Your task to perform on an android device: delete a single message in the gmail app Image 0: 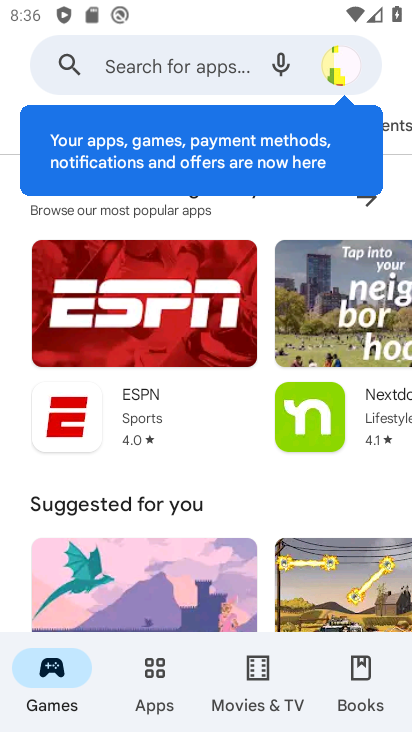
Step 0: press home button
Your task to perform on an android device: delete a single message in the gmail app Image 1: 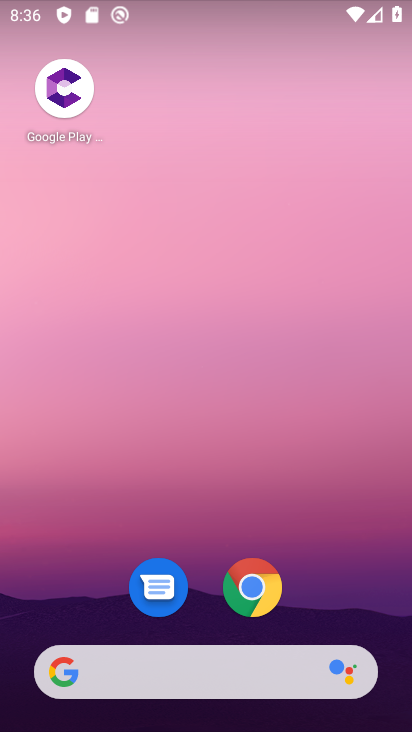
Step 1: drag from (216, 647) to (249, 193)
Your task to perform on an android device: delete a single message in the gmail app Image 2: 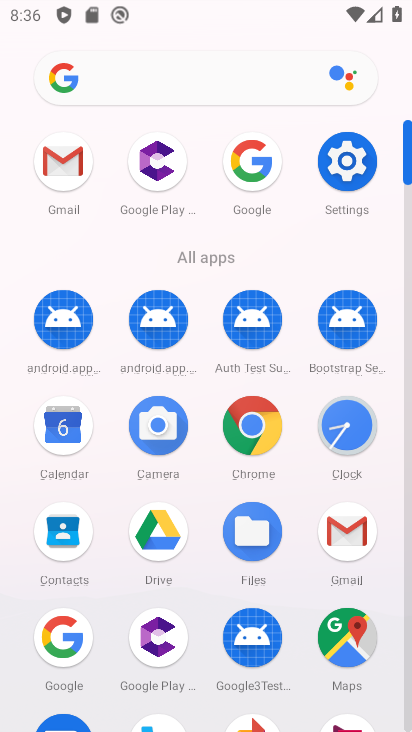
Step 2: click (82, 159)
Your task to perform on an android device: delete a single message in the gmail app Image 3: 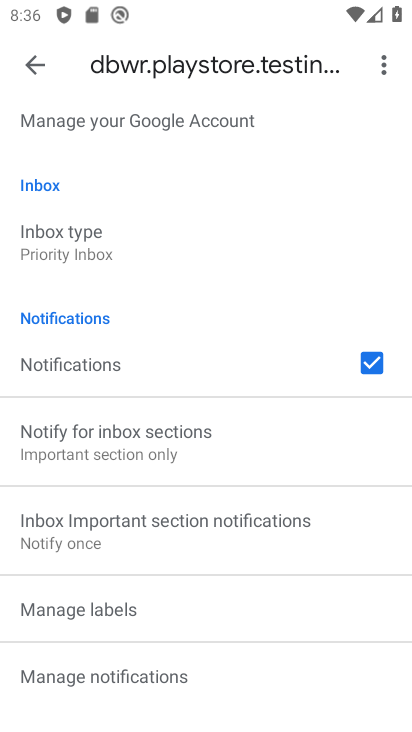
Step 3: click (41, 67)
Your task to perform on an android device: delete a single message in the gmail app Image 4: 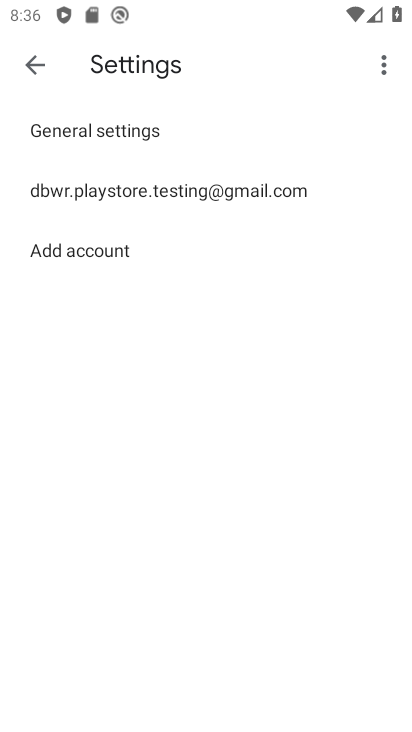
Step 4: click (41, 67)
Your task to perform on an android device: delete a single message in the gmail app Image 5: 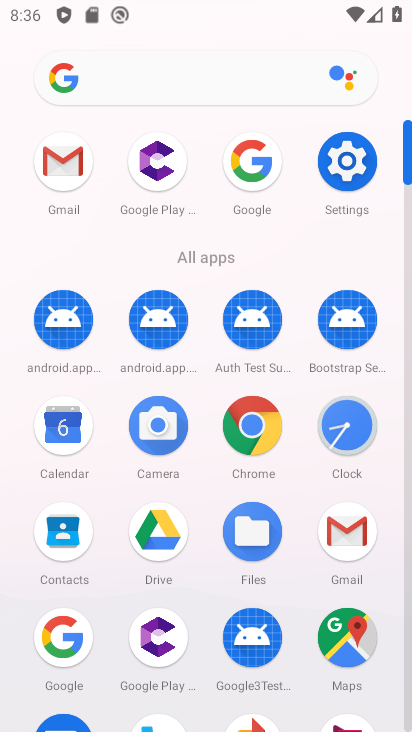
Step 5: click (46, 133)
Your task to perform on an android device: delete a single message in the gmail app Image 6: 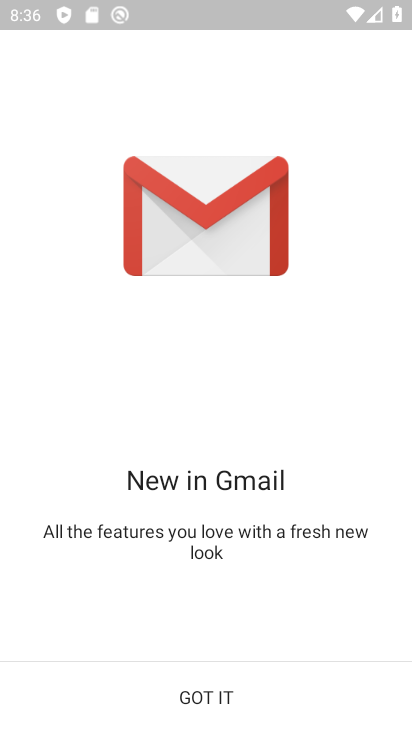
Step 6: click (230, 683)
Your task to perform on an android device: delete a single message in the gmail app Image 7: 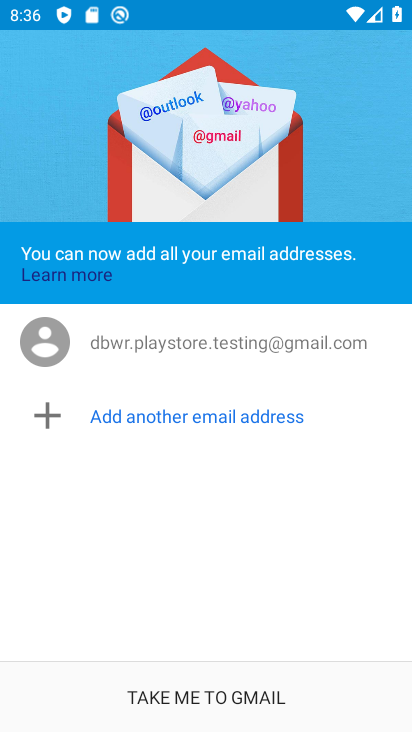
Step 7: click (230, 683)
Your task to perform on an android device: delete a single message in the gmail app Image 8: 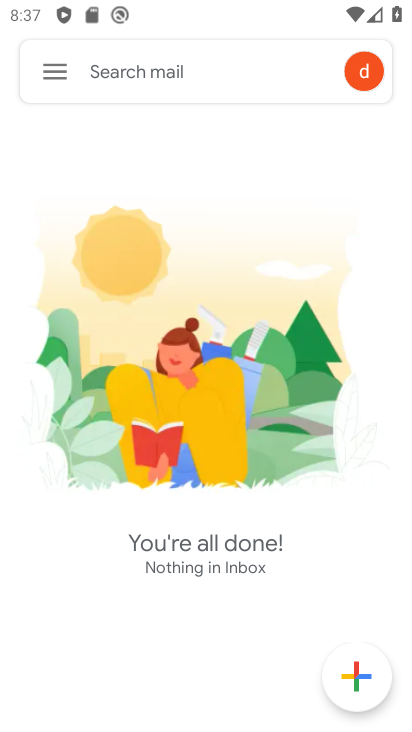
Step 8: task complete